Your task to perform on an android device: Open location settings Image 0: 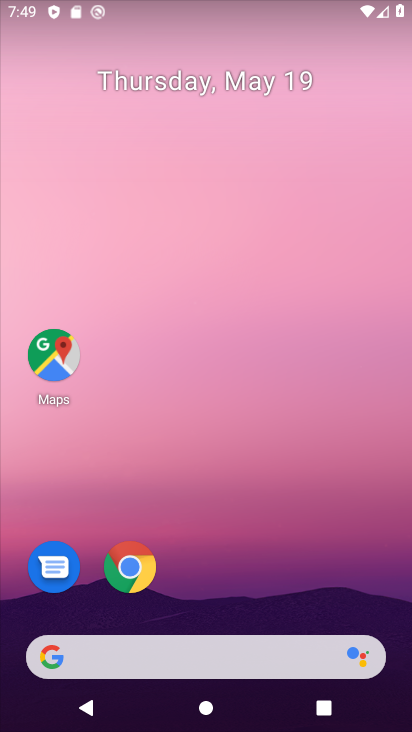
Step 0: drag from (179, 617) to (339, 31)
Your task to perform on an android device: Open location settings Image 1: 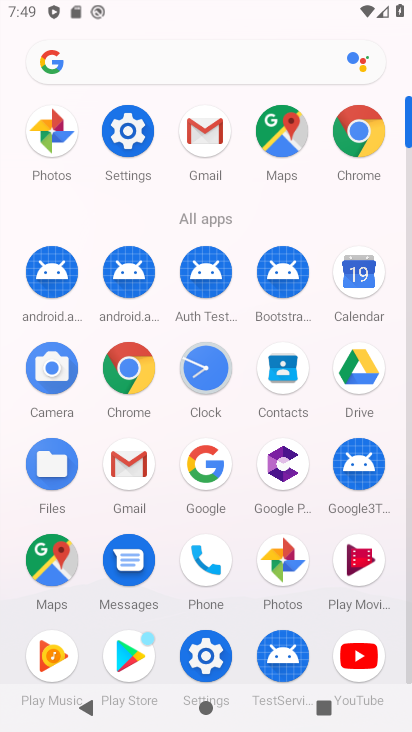
Step 1: click (145, 140)
Your task to perform on an android device: Open location settings Image 2: 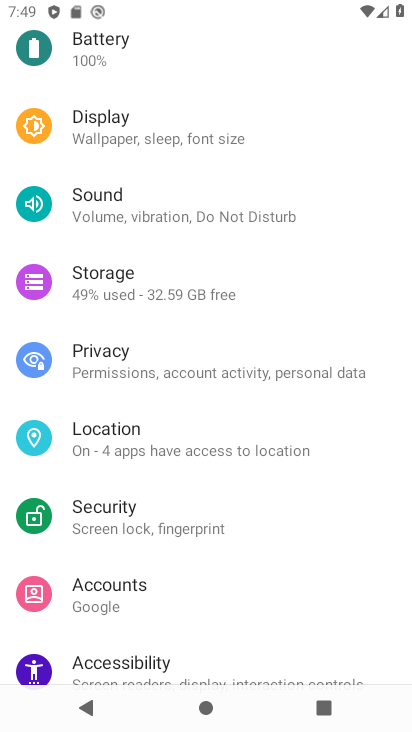
Step 2: click (130, 431)
Your task to perform on an android device: Open location settings Image 3: 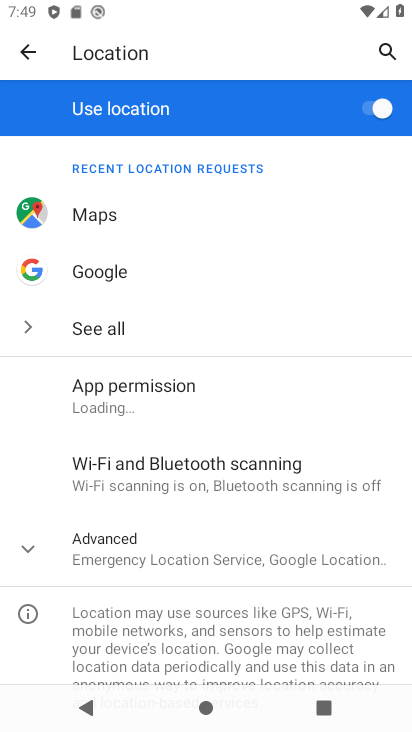
Step 3: task complete